Your task to perform on an android device: check the backup settings in the google photos Image 0: 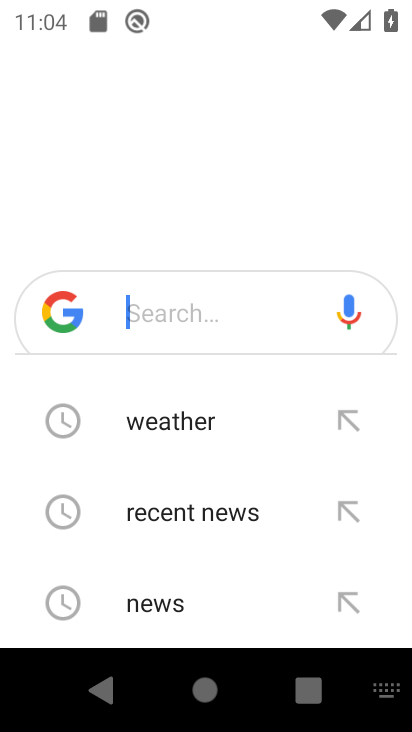
Step 0: press home button
Your task to perform on an android device: check the backup settings in the google photos Image 1: 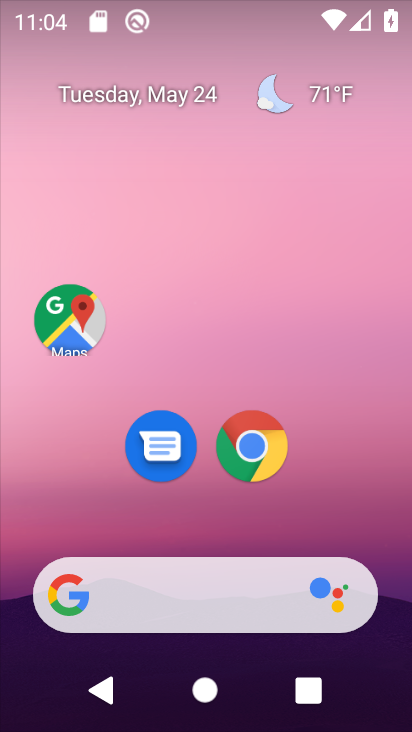
Step 1: drag from (207, 361) to (202, 134)
Your task to perform on an android device: check the backup settings in the google photos Image 2: 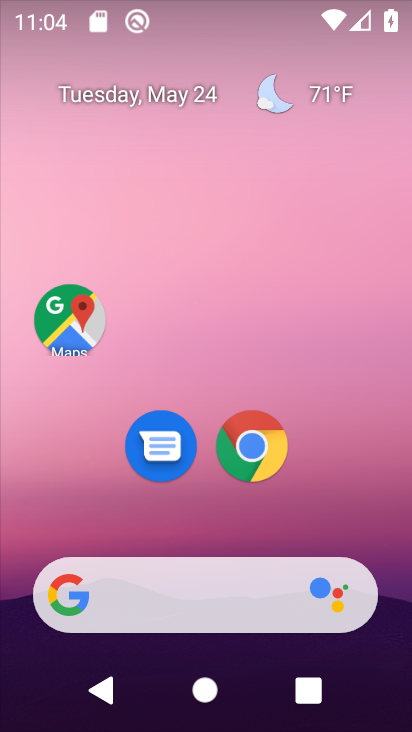
Step 2: drag from (219, 523) to (173, 139)
Your task to perform on an android device: check the backup settings in the google photos Image 3: 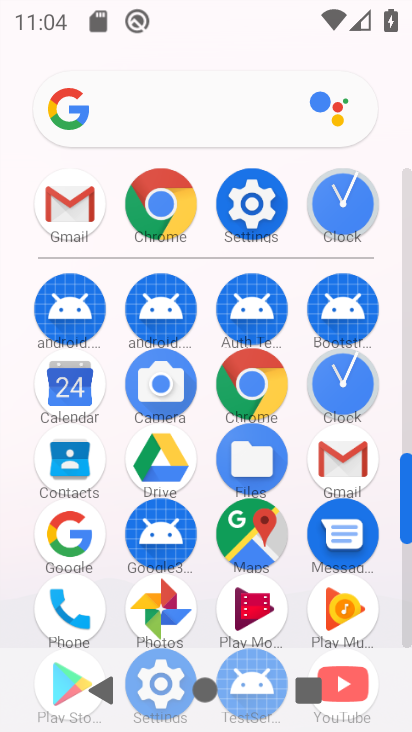
Step 3: drag from (204, 263) to (195, 121)
Your task to perform on an android device: check the backup settings in the google photos Image 4: 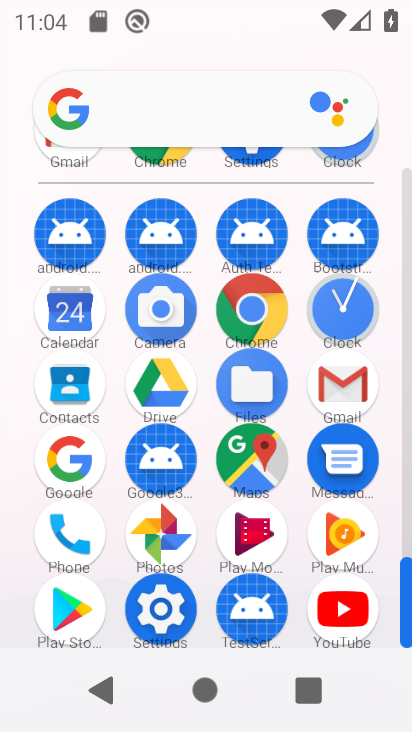
Step 4: click (159, 522)
Your task to perform on an android device: check the backup settings in the google photos Image 5: 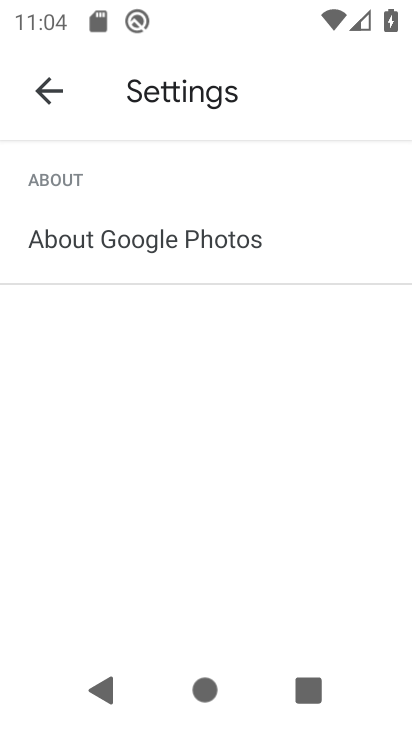
Step 5: click (51, 110)
Your task to perform on an android device: check the backup settings in the google photos Image 6: 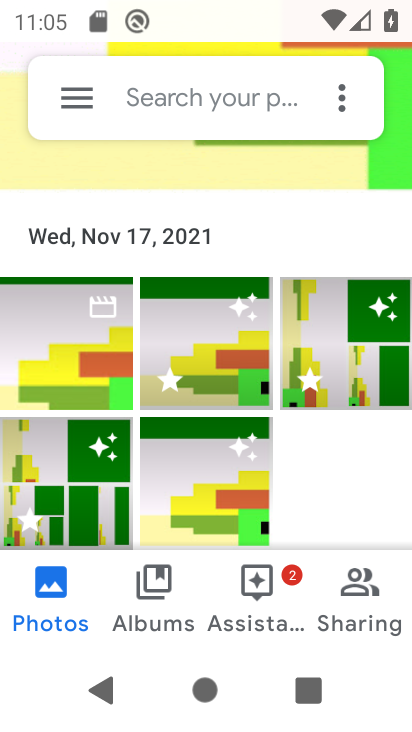
Step 6: click (81, 115)
Your task to perform on an android device: check the backup settings in the google photos Image 7: 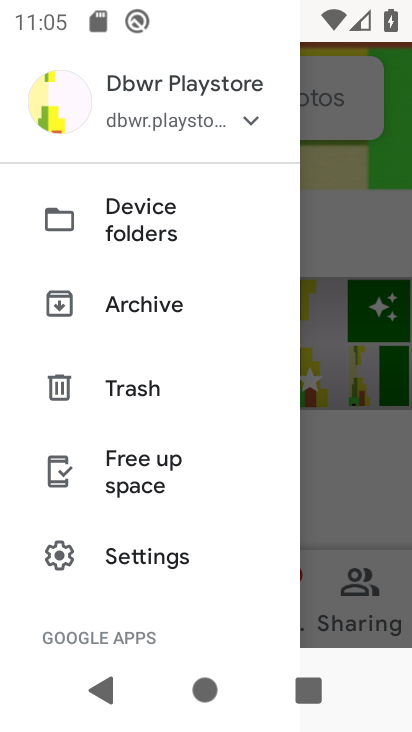
Step 7: click (153, 564)
Your task to perform on an android device: check the backup settings in the google photos Image 8: 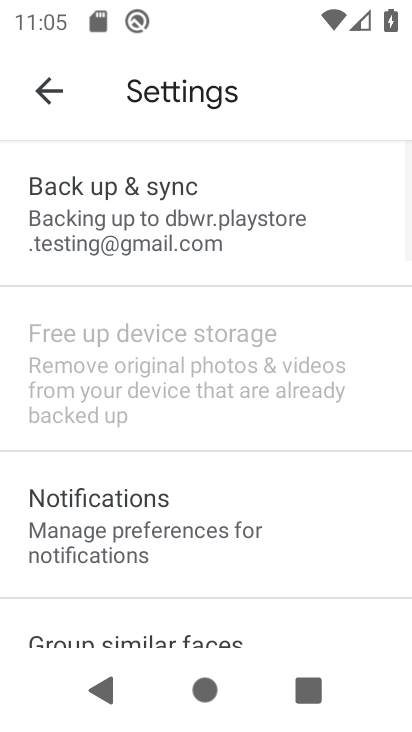
Step 8: click (215, 239)
Your task to perform on an android device: check the backup settings in the google photos Image 9: 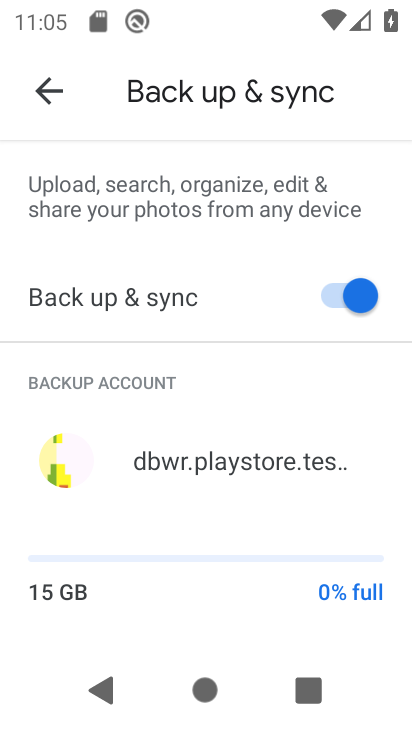
Step 9: task complete